Your task to perform on an android device: Go to ESPN.com Image 0: 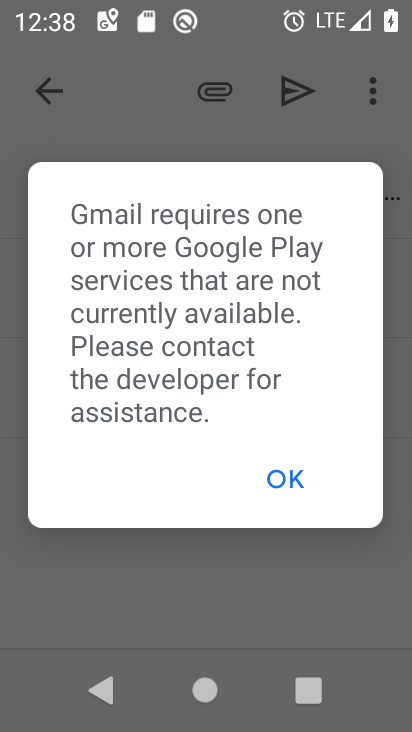
Step 0: press home button
Your task to perform on an android device: Go to ESPN.com Image 1: 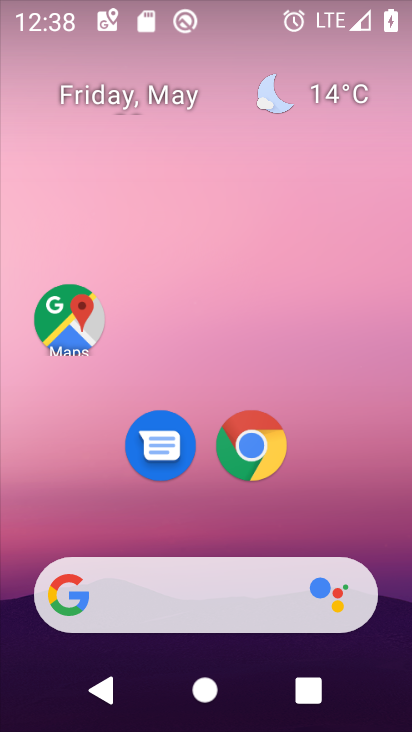
Step 1: click (260, 446)
Your task to perform on an android device: Go to ESPN.com Image 2: 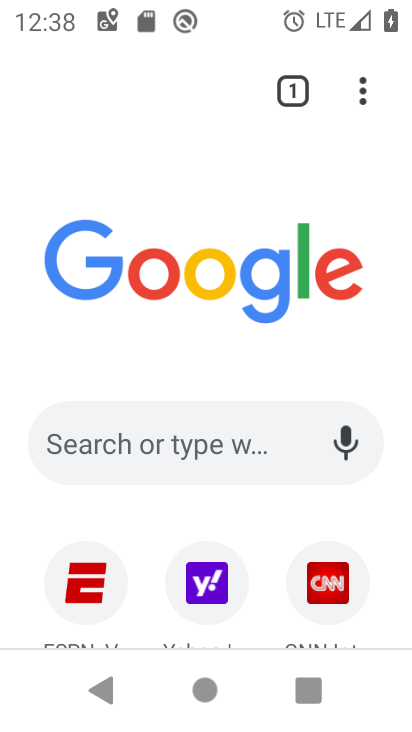
Step 2: click (73, 584)
Your task to perform on an android device: Go to ESPN.com Image 3: 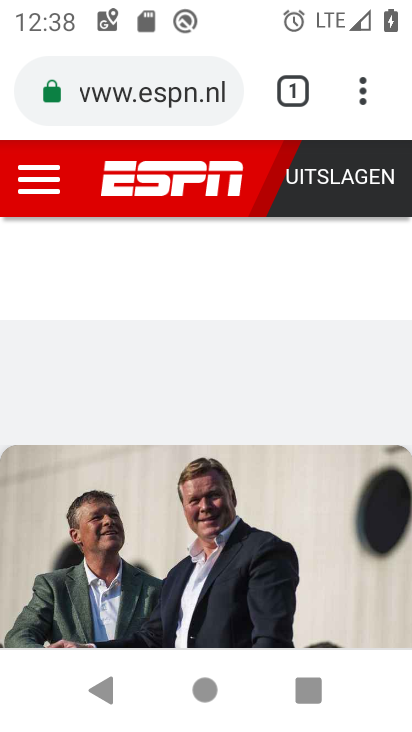
Step 3: task complete